Your task to perform on an android device: turn vacation reply on in the gmail app Image 0: 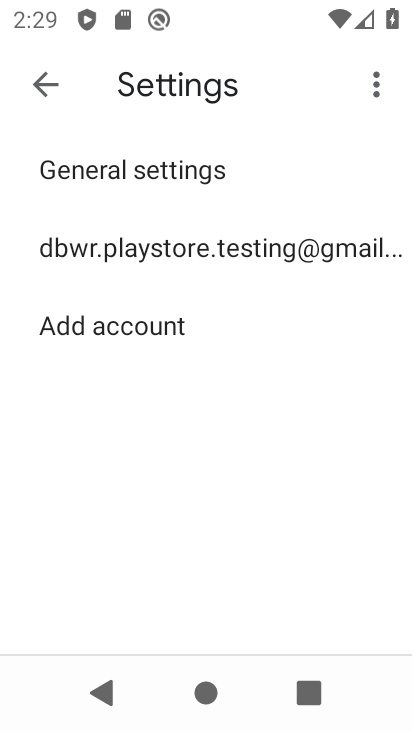
Step 0: drag from (22, 225) to (377, 188)
Your task to perform on an android device: turn vacation reply on in the gmail app Image 1: 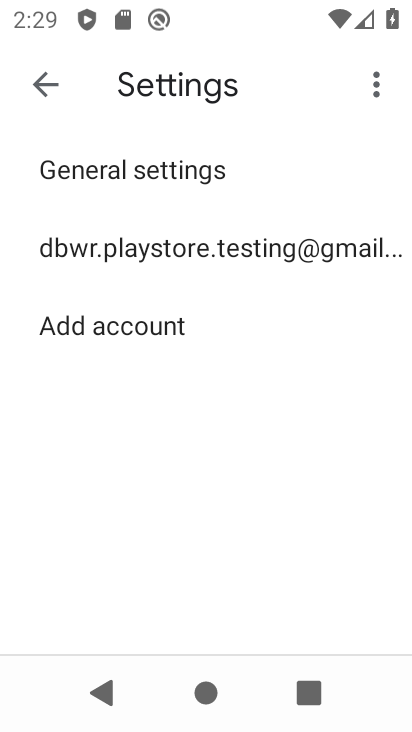
Step 1: click (245, 237)
Your task to perform on an android device: turn vacation reply on in the gmail app Image 2: 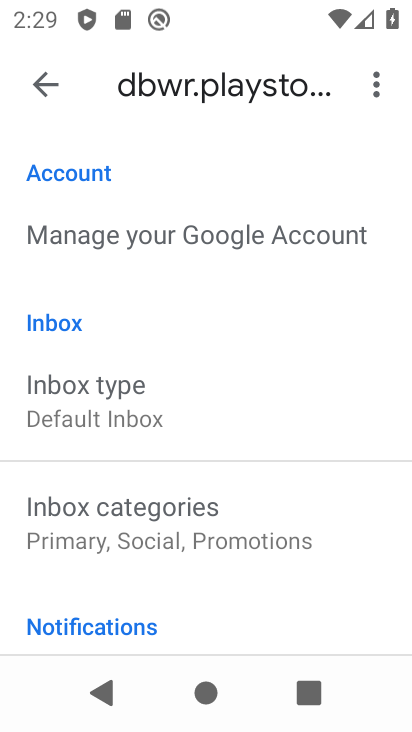
Step 2: drag from (191, 574) to (302, 143)
Your task to perform on an android device: turn vacation reply on in the gmail app Image 3: 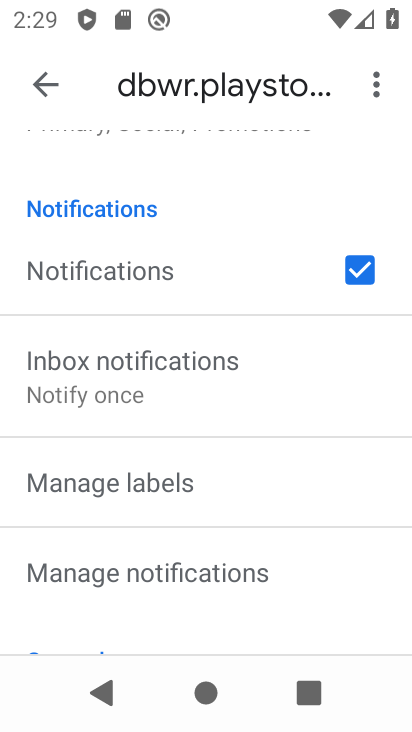
Step 3: drag from (175, 550) to (258, 139)
Your task to perform on an android device: turn vacation reply on in the gmail app Image 4: 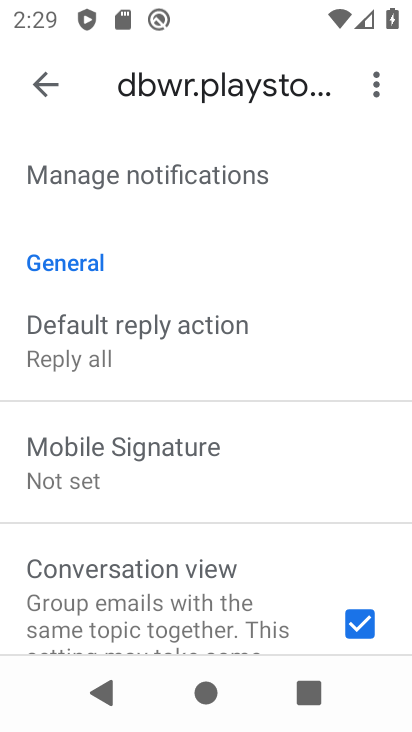
Step 4: drag from (239, 632) to (283, 159)
Your task to perform on an android device: turn vacation reply on in the gmail app Image 5: 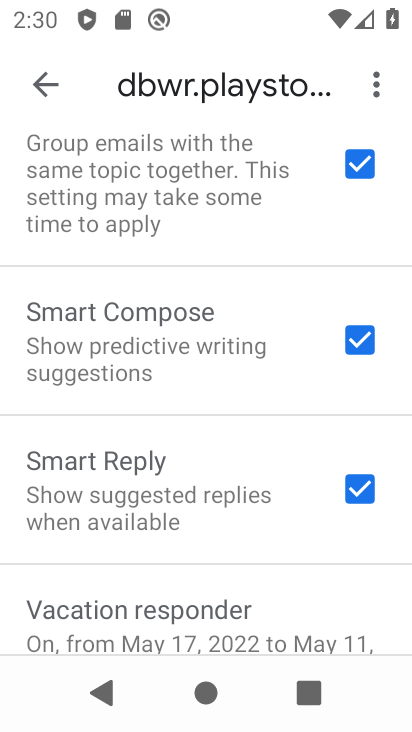
Step 5: click (216, 600)
Your task to perform on an android device: turn vacation reply on in the gmail app Image 6: 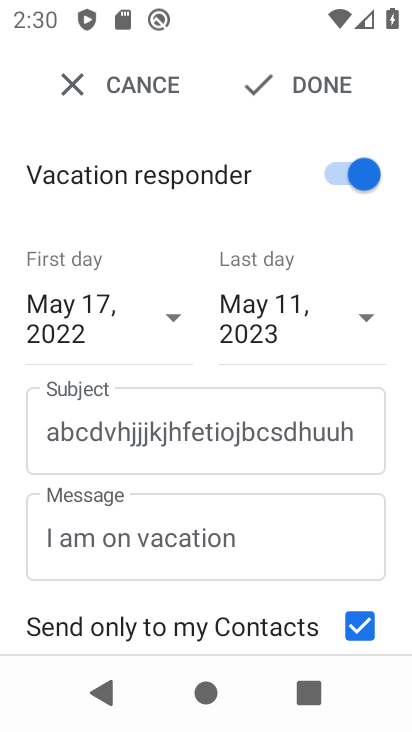
Step 6: click (265, 78)
Your task to perform on an android device: turn vacation reply on in the gmail app Image 7: 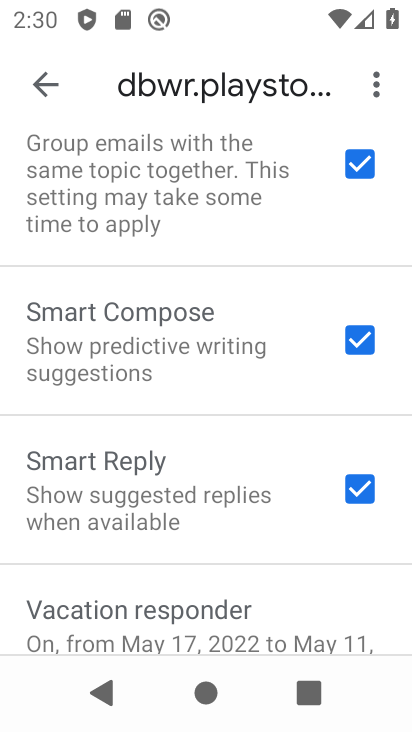
Step 7: task complete